Your task to perform on an android device: star an email in the gmail app Image 0: 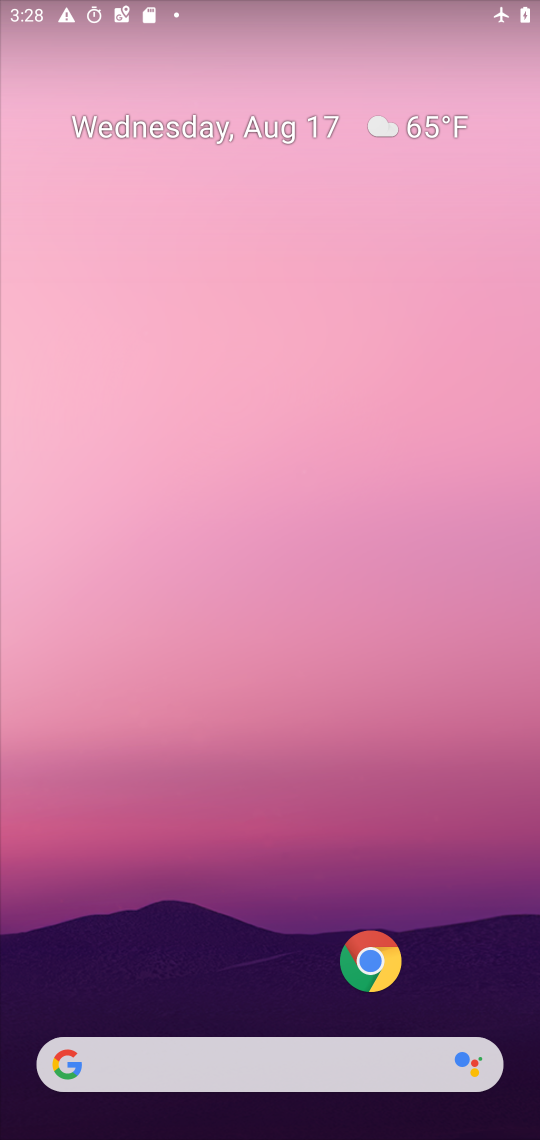
Step 0: drag from (374, 406) to (355, 594)
Your task to perform on an android device: star an email in the gmail app Image 1: 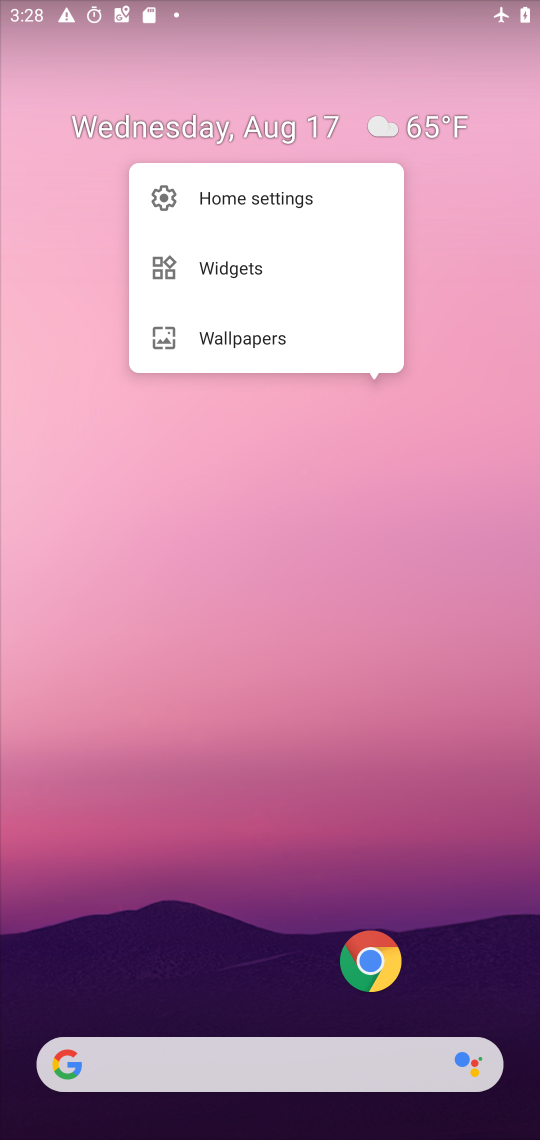
Step 1: drag from (244, 429) to (246, 268)
Your task to perform on an android device: star an email in the gmail app Image 2: 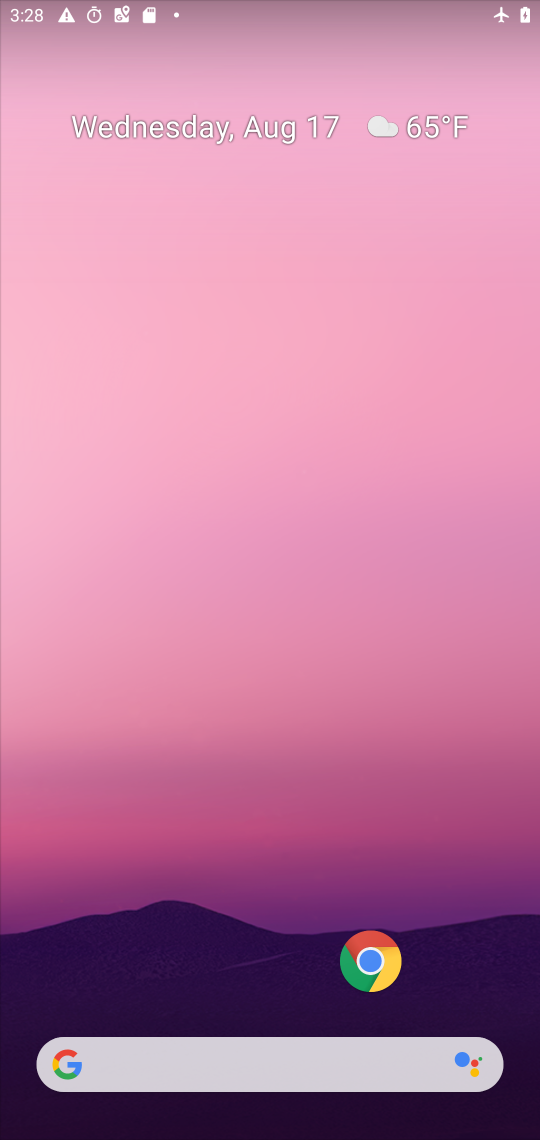
Step 2: drag from (238, 953) to (201, 60)
Your task to perform on an android device: star an email in the gmail app Image 3: 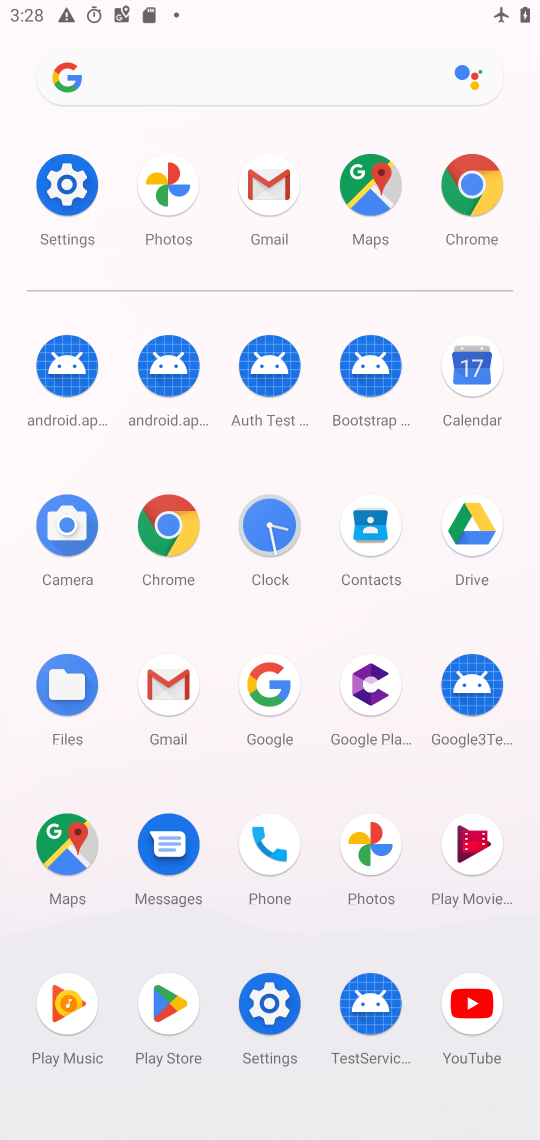
Step 3: click (173, 719)
Your task to perform on an android device: star an email in the gmail app Image 4: 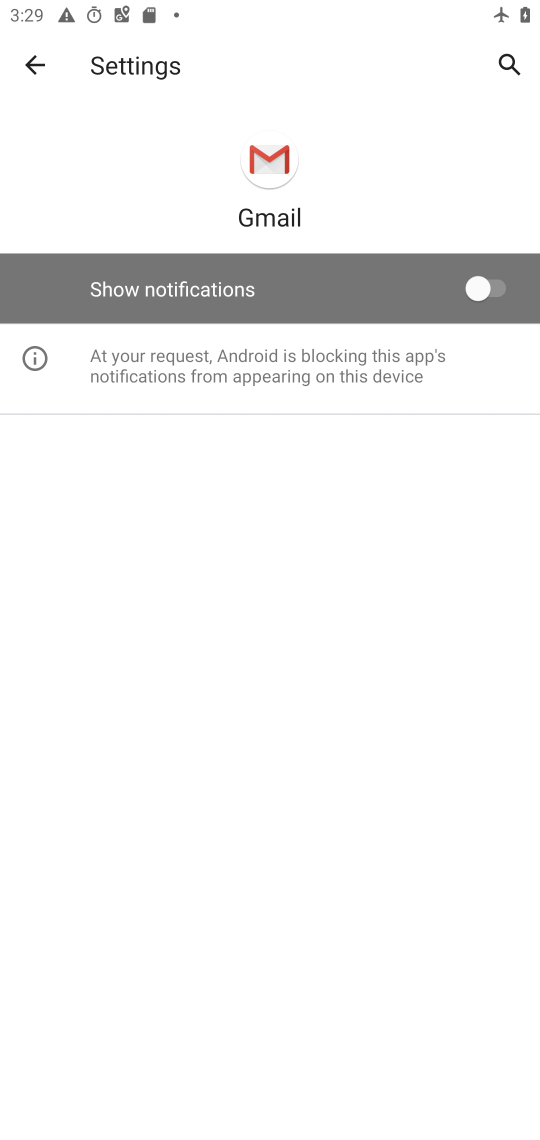
Step 4: click (35, 67)
Your task to perform on an android device: star an email in the gmail app Image 5: 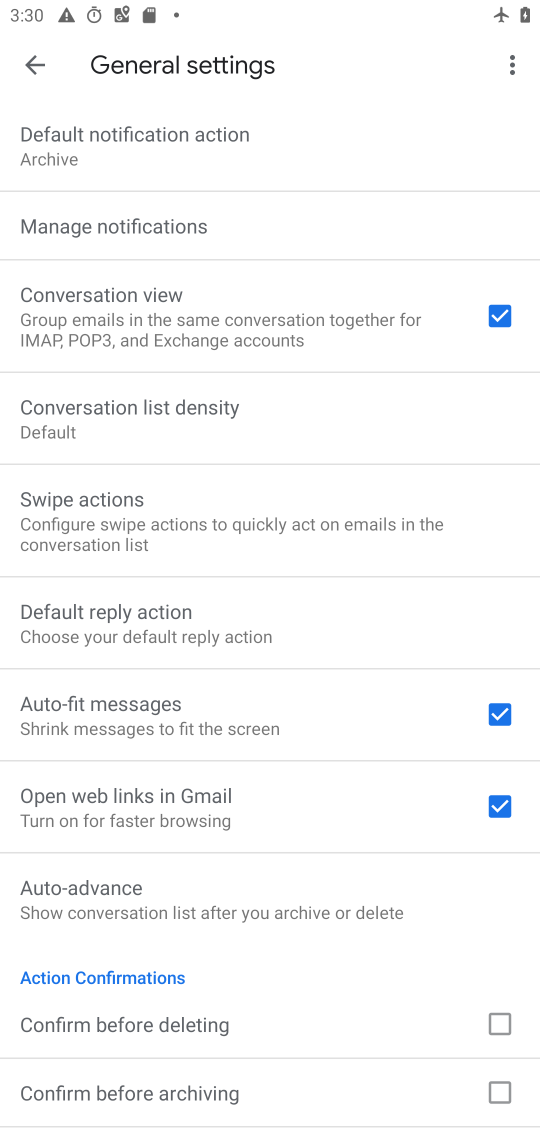
Step 5: click (49, 68)
Your task to perform on an android device: star an email in the gmail app Image 6: 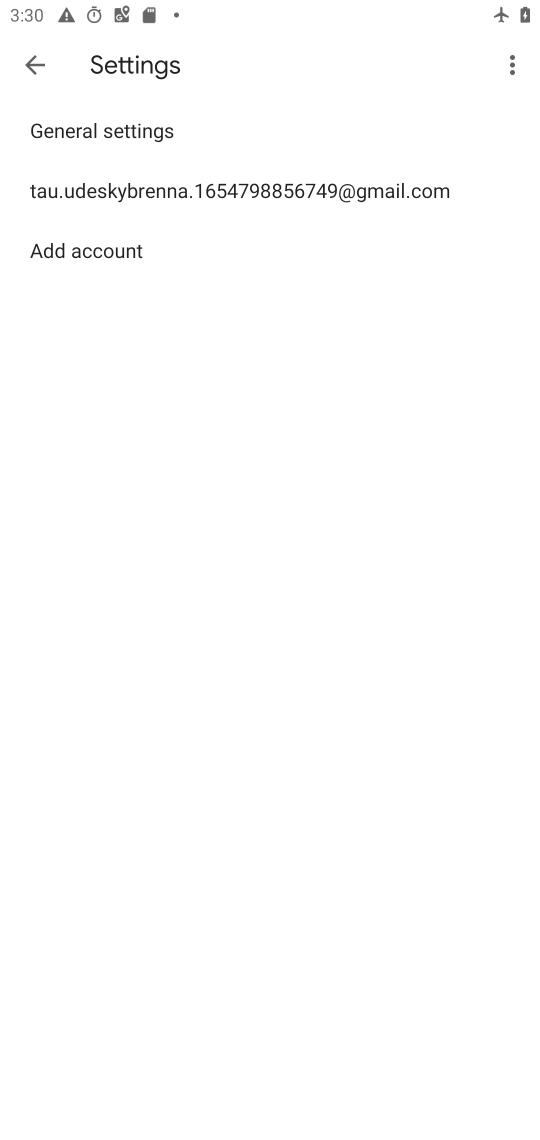
Step 6: click (42, 76)
Your task to perform on an android device: star an email in the gmail app Image 7: 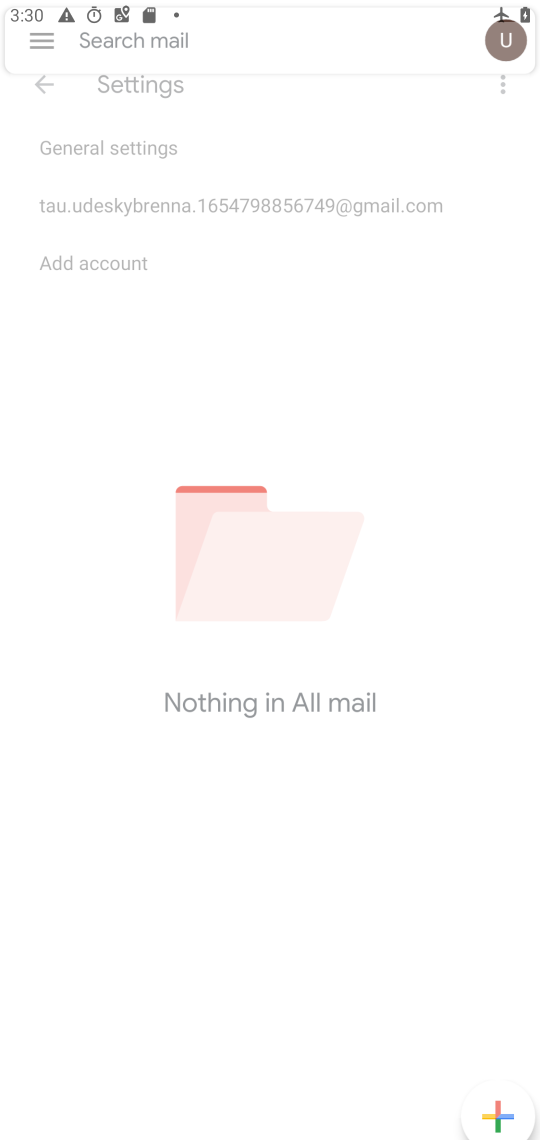
Step 7: click (18, 59)
Your task to perform on an android device: star an email in the gmail app Image 8: 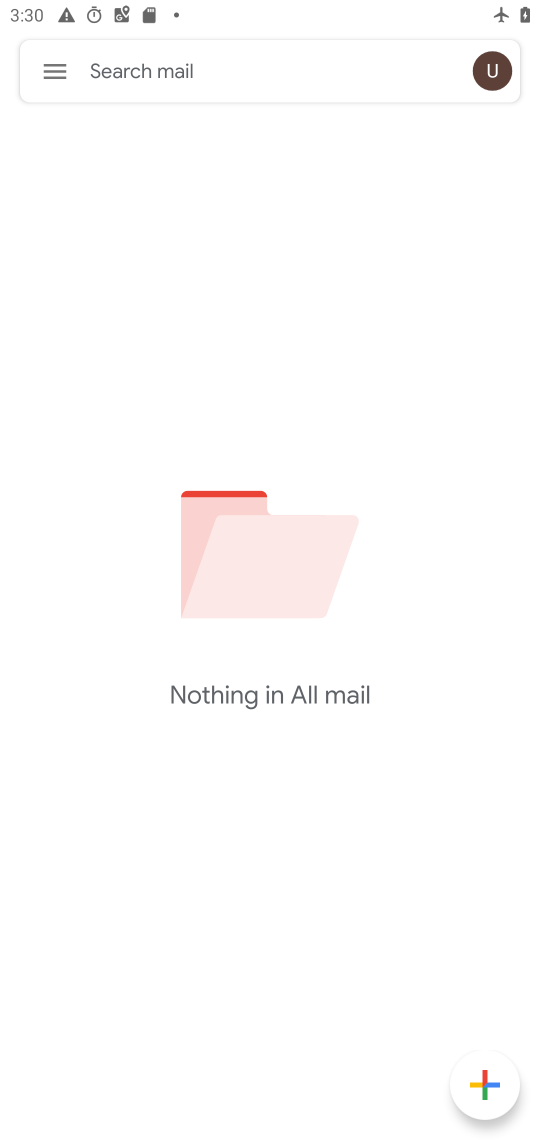
Step 8: task complete